Your task to perform on an android device: Go to Amazon Image 0: 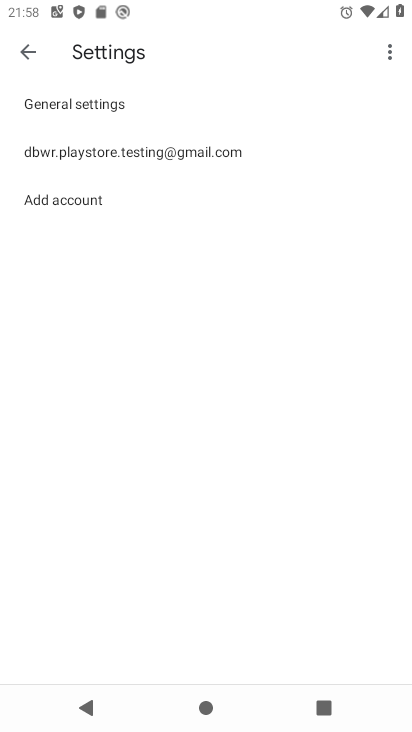
Step 0: click (16, 47)
Your task to perform on an android device: Go to Amazon Image 1: 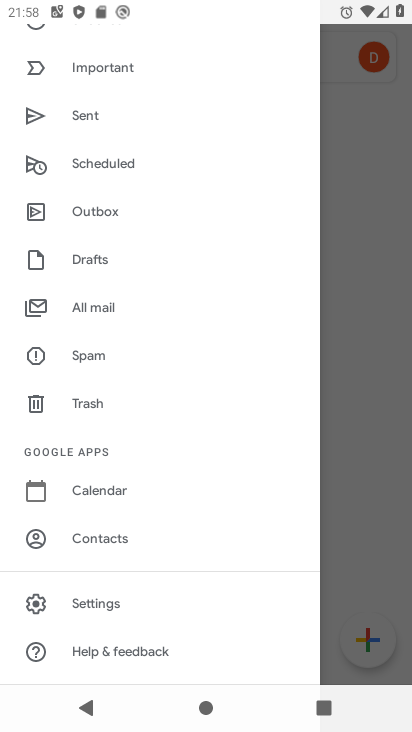
Step 1: click (370, 297)
Your task to perform on an android device: Go to Amazon Image 2: 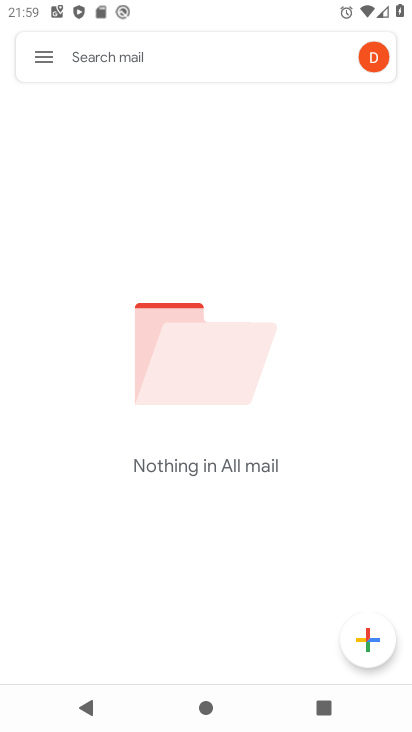
Step 2: press home button
Your task to perform on an android device: Go to Amazon Image 3: 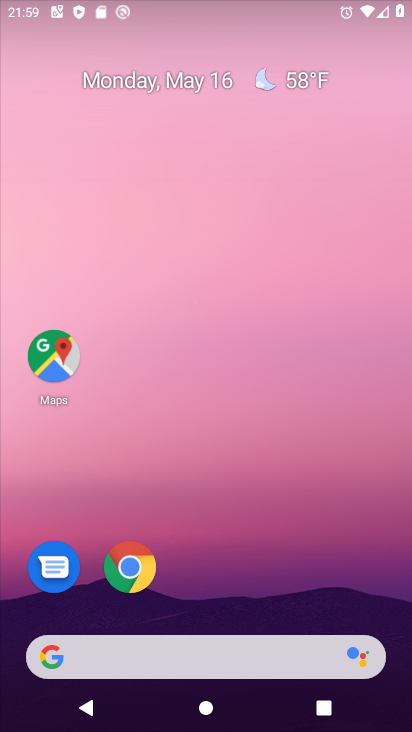
Step 3: drag from (263, 569) to (278, 220)
Your task to perform on an android device: Go to Amazon Image 4: 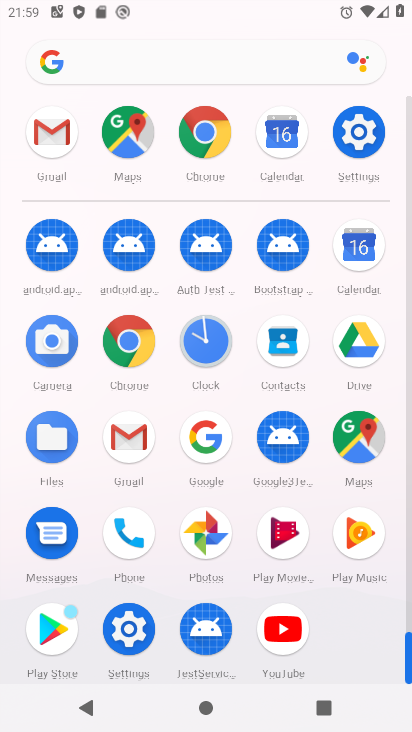
Step 4: click (156, 332)
Your task to perform on an android device: Go to Amazon Image 5: 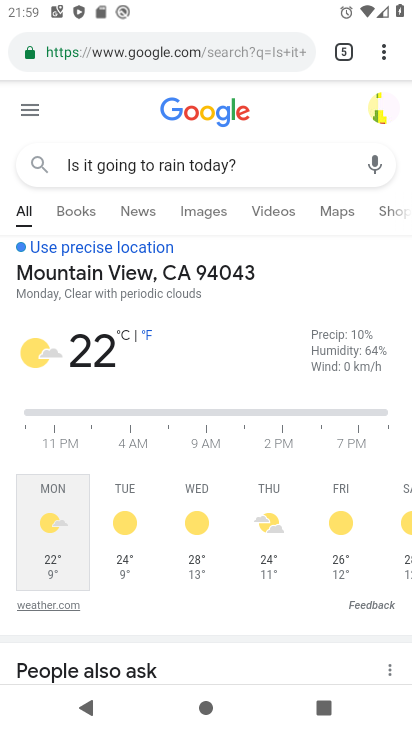
Step 5: click (375, 47)
Your task to perform on an android device: Go to Amazon Image 6: 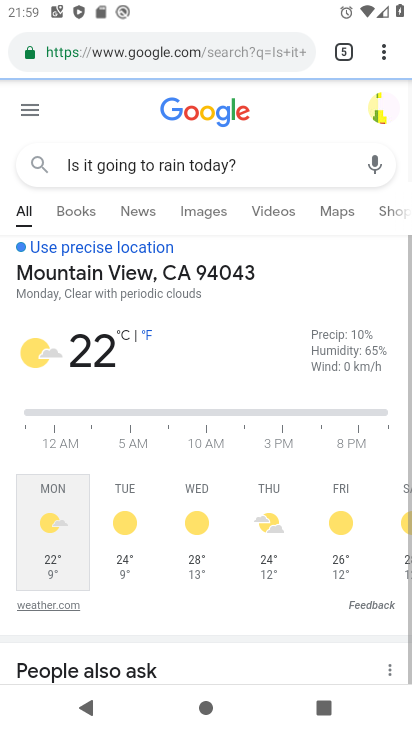
Step 6: click (375, 47)
Your task to perform on an android device: Go to Amazon Image 7: 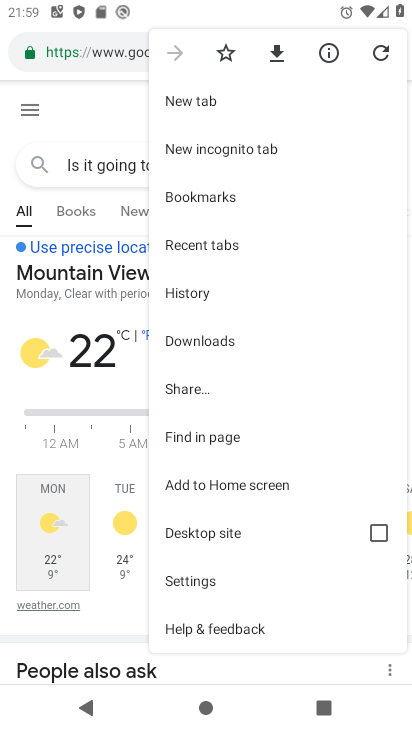
Step 7: click (221, 94)
Your task to perform on an android device: Go to Amazon Image 8: 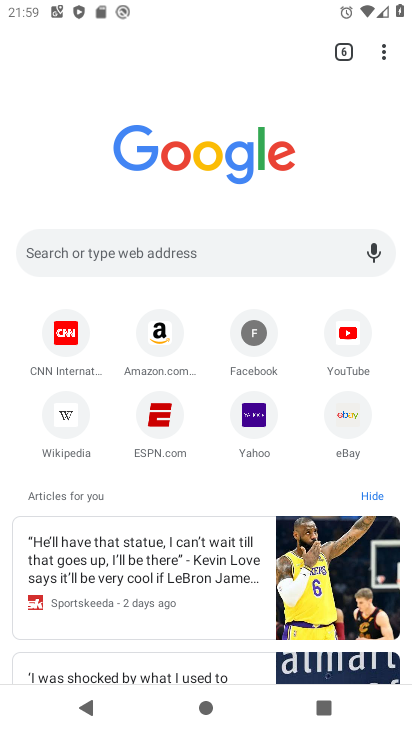
Step 8: click (155, 325)
Your task to perform on an android device: Go to Amazon Image 9: 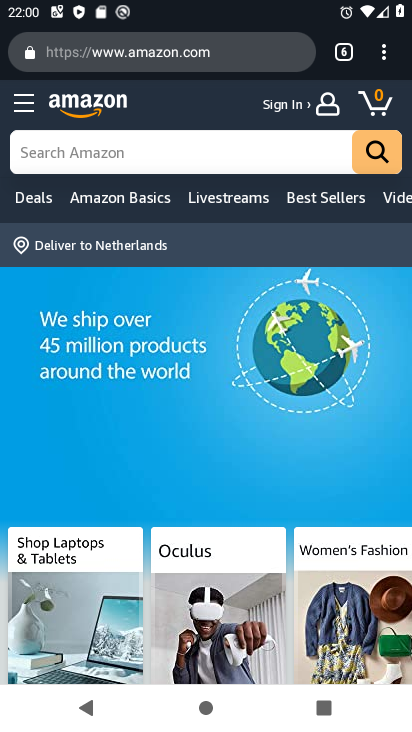
Step 9: task complete